Your task to perform on an android device: Open calendar and show me the fourth week of next month Image 0: 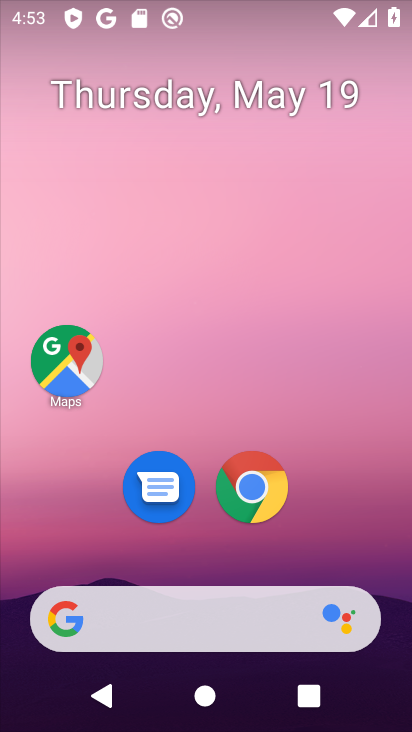
Step 0: drag from (345, 541) to (238, 133)
Your task to perform on an android device: Open calendar and show me the fourth week of next month Image 1: 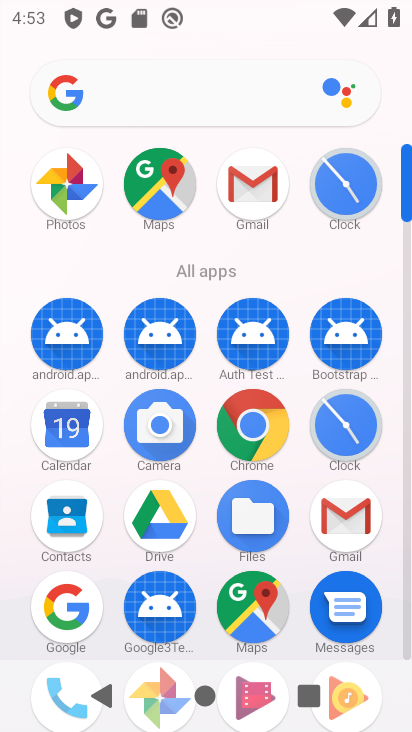
Step 1: click (68, 428)
Your task to perform on an android device: Open calendar and show me the fourth week of next month Image 2: 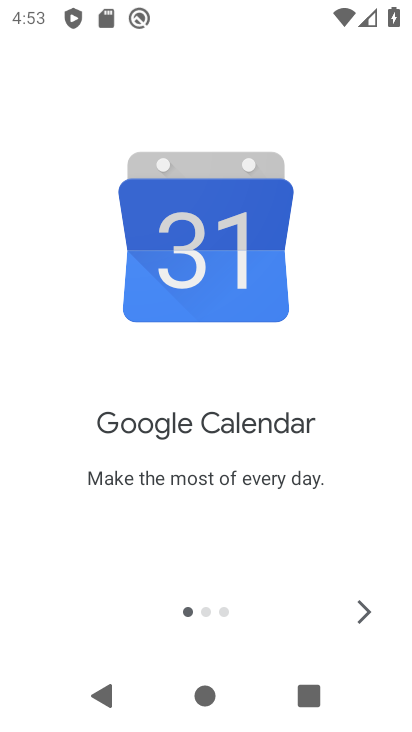
Step 2: click (366, 612)
Your task to perform on an android device: Open calendar and show me the fourth week of next month Image 3: 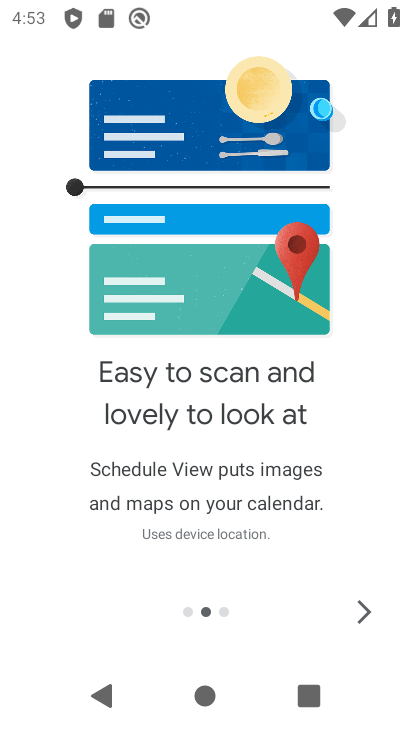
Step 3: click (366, 612)
Your task to perform on an android device: Open calendar and show me the fourth week of next month Image 4: 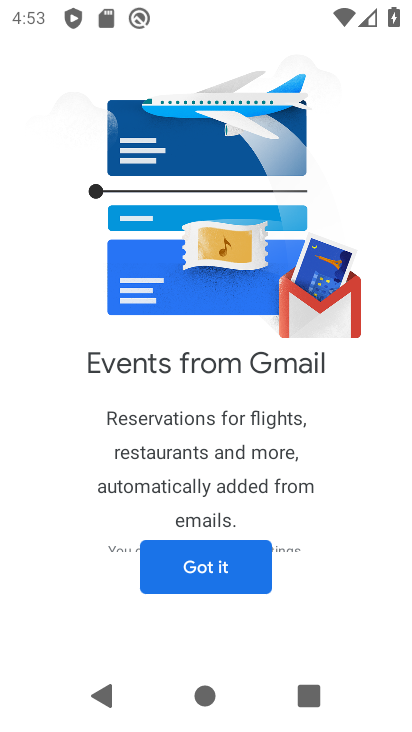
Step 4: click (212, 570)
Your task to perform on an android device: Open calendar and show me the fourth week of next month Image 5: 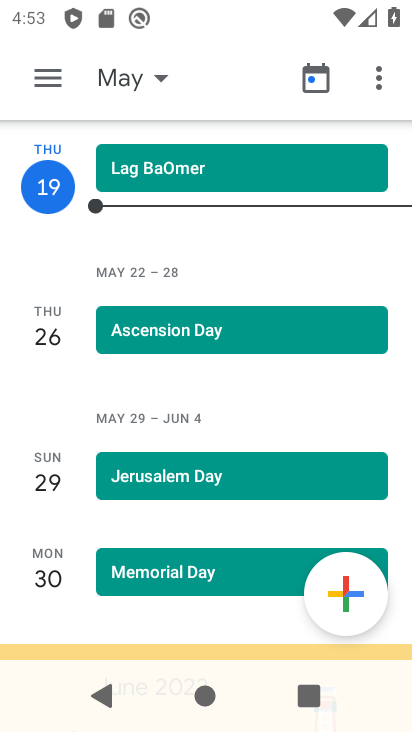
Step 5: click (160, 78)
Your task to perform on an android device: Open calendar and show me the fourth week of next month Image 6: 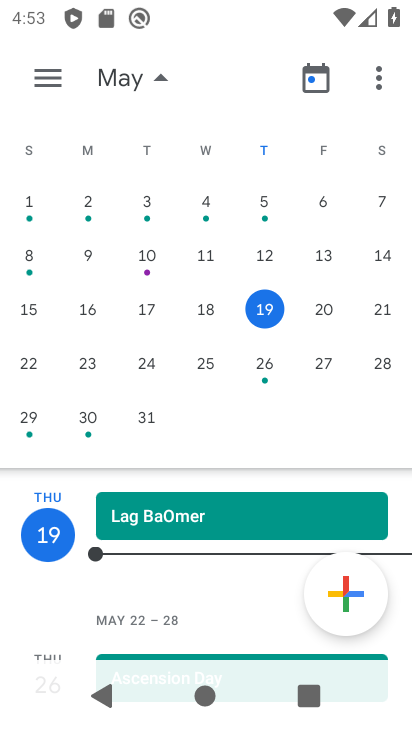
Step 6: drag from (365, 330) to (24, 304)
Your task to perform on an android device: Open calendar and show me the fourth week of next month Image 7: 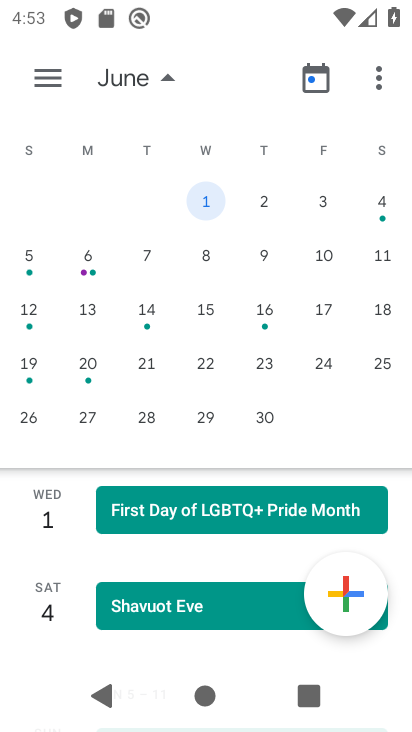
Step 7: click (86, 415)
Your task to perform on an android device: Open calendar and show me the fourth week of next month Image 8: 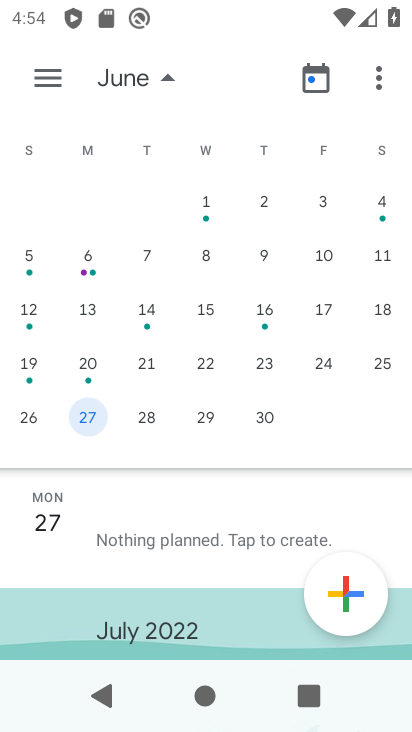
Step 8: click (45, 78)
Your task to perform on an android device: Open calendar and show me the fourth week of next month Image 9: 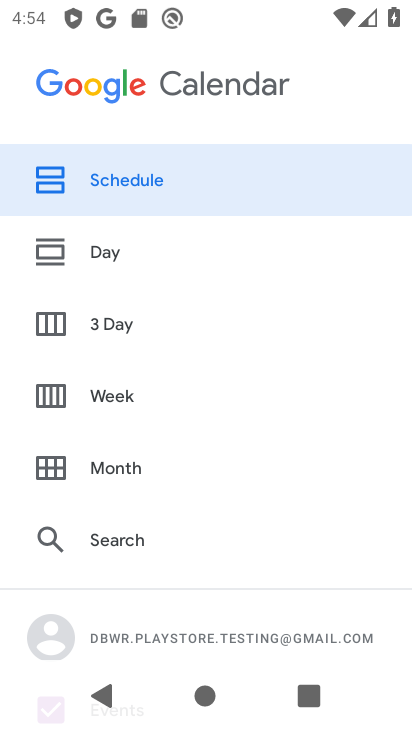
Step 9: click (109, 388)
Your task to perform on an android device: Open calendar and show me the fourth week of next month Image 10: 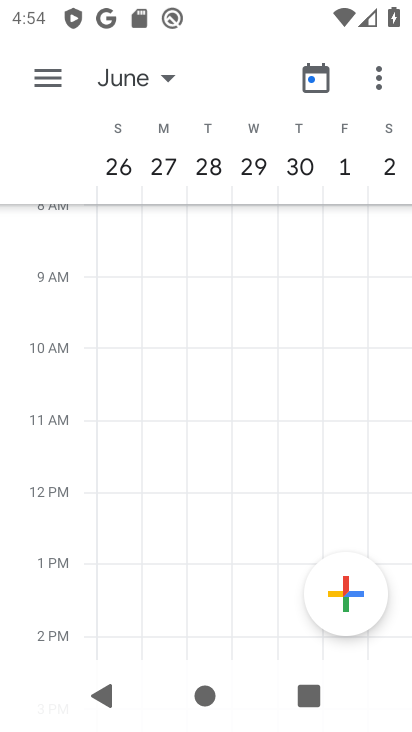
Step 10: task complete